Your task to perform on an android device: move an email to a new category in the gmail app Image 0: 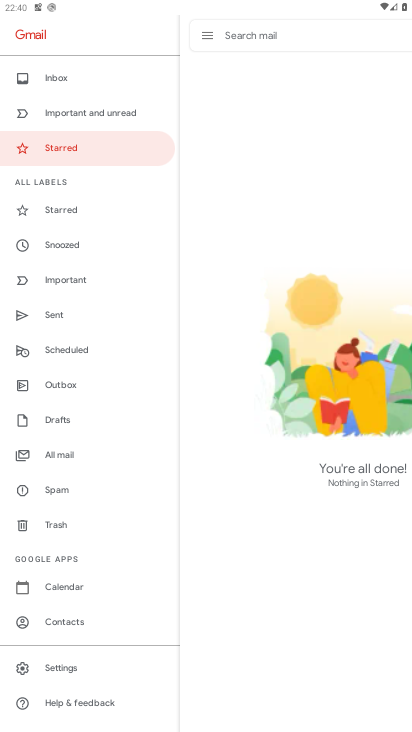
Step 0: click (74, 86)
Your task to perform on an android device: move an email to a new category in the gmail app Image 1: 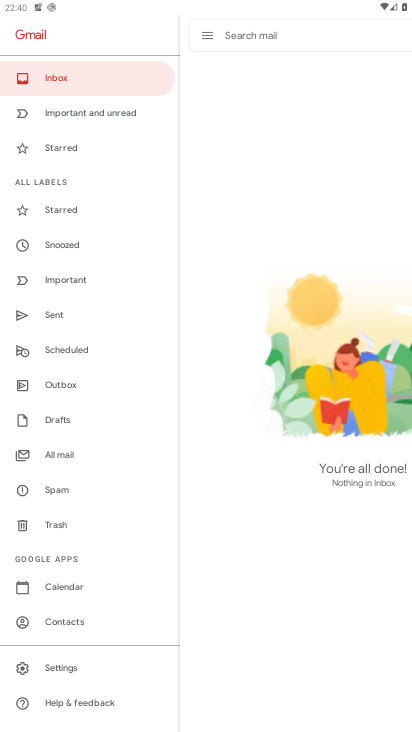
Step 1: task complete